Your task to perform on an android device: turn off priority inbox in the gmail app Image 0: 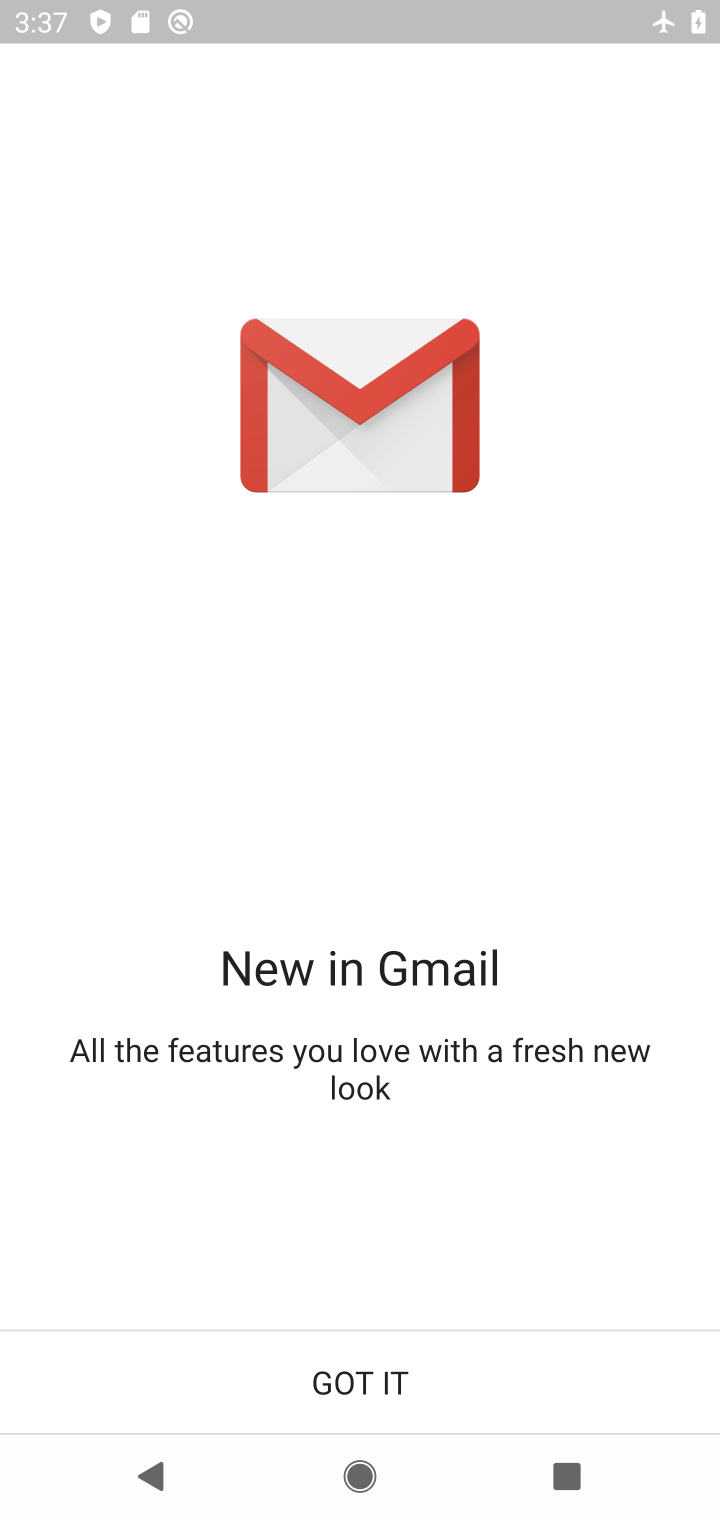
Step 0: click (325, 1367)
Your task to perform on an android device: turn off priority inbox in the gmail app Image 1: 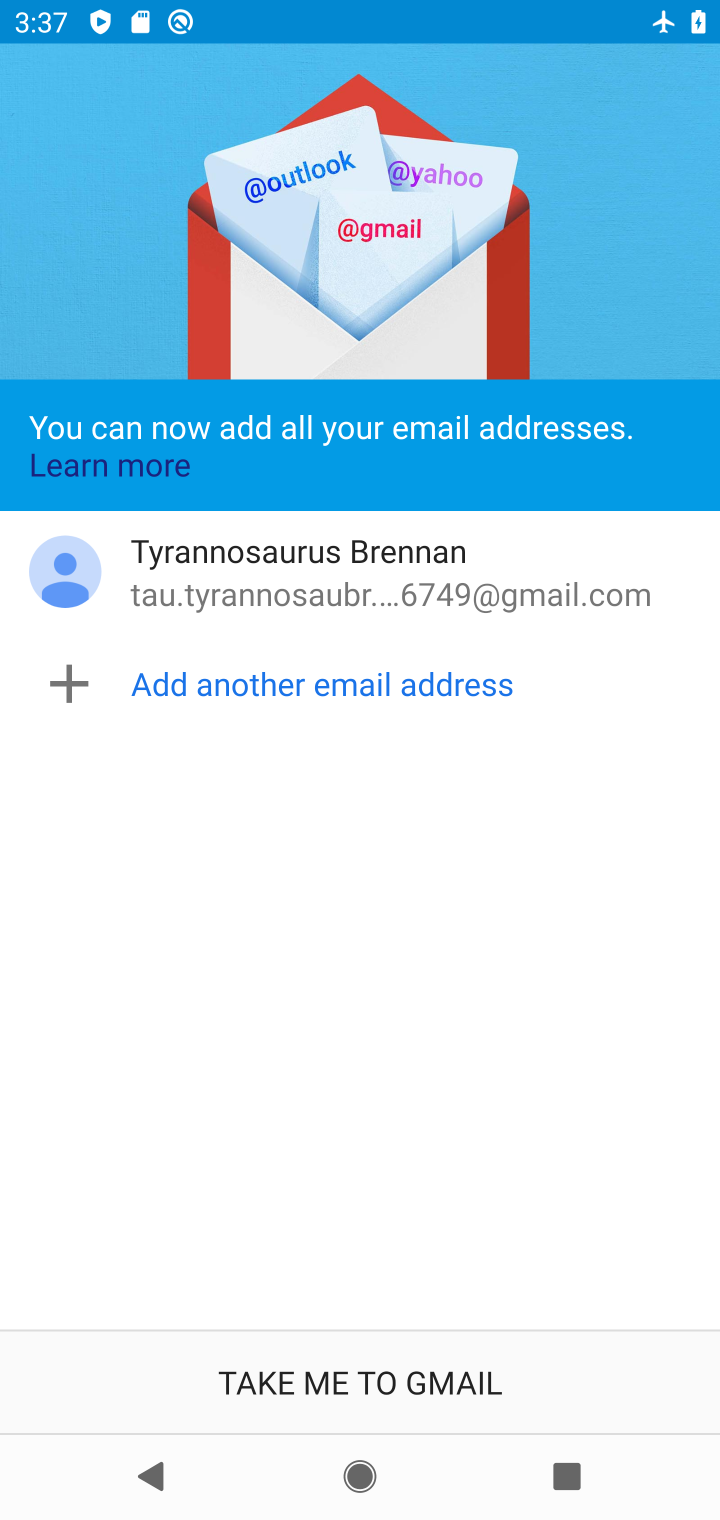
Step 1: click (353, 1385)
Your task to perform on an android device: turn off priority inbox in the gmail app Image 2: 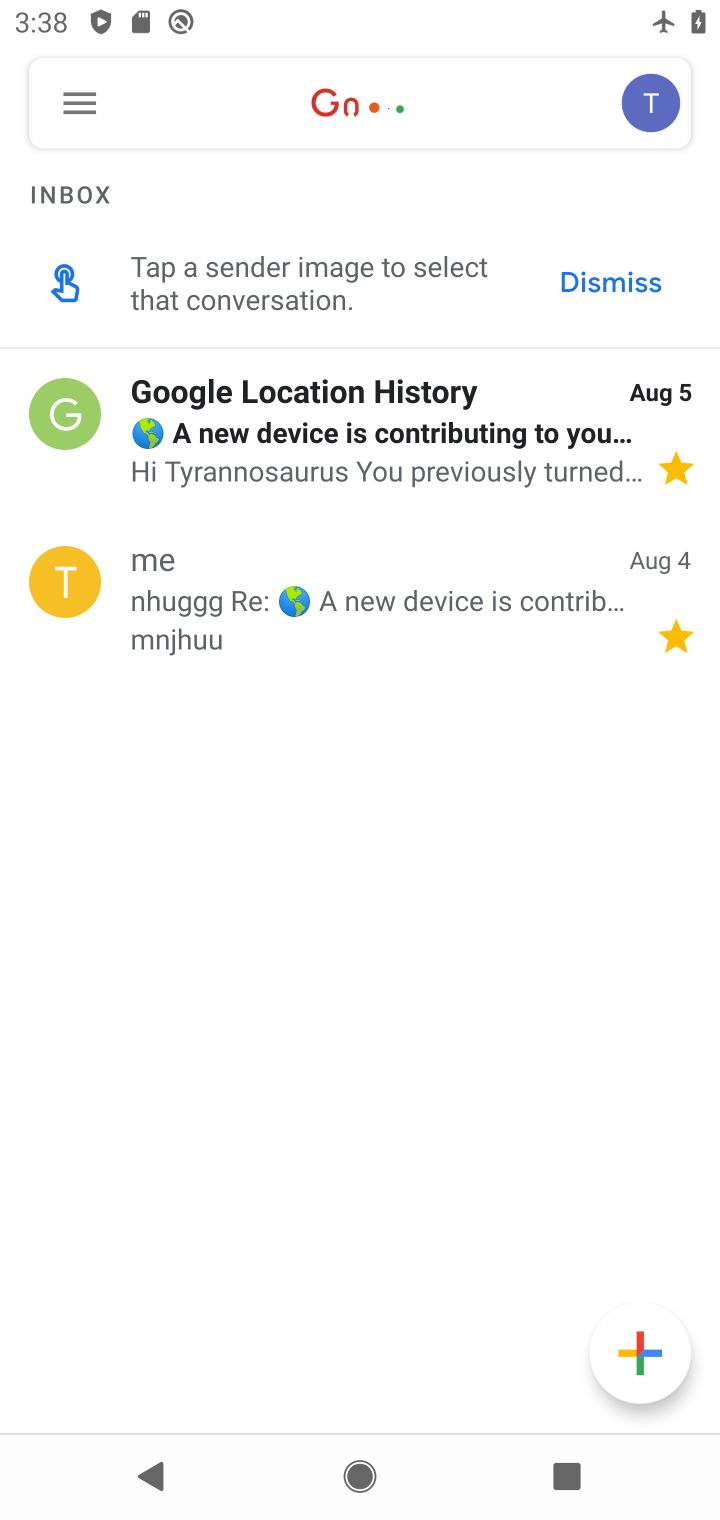
Step 2: click (93, 102)
Your task to perform on an android device: turn off priority inbox in the gmail app Image 3: 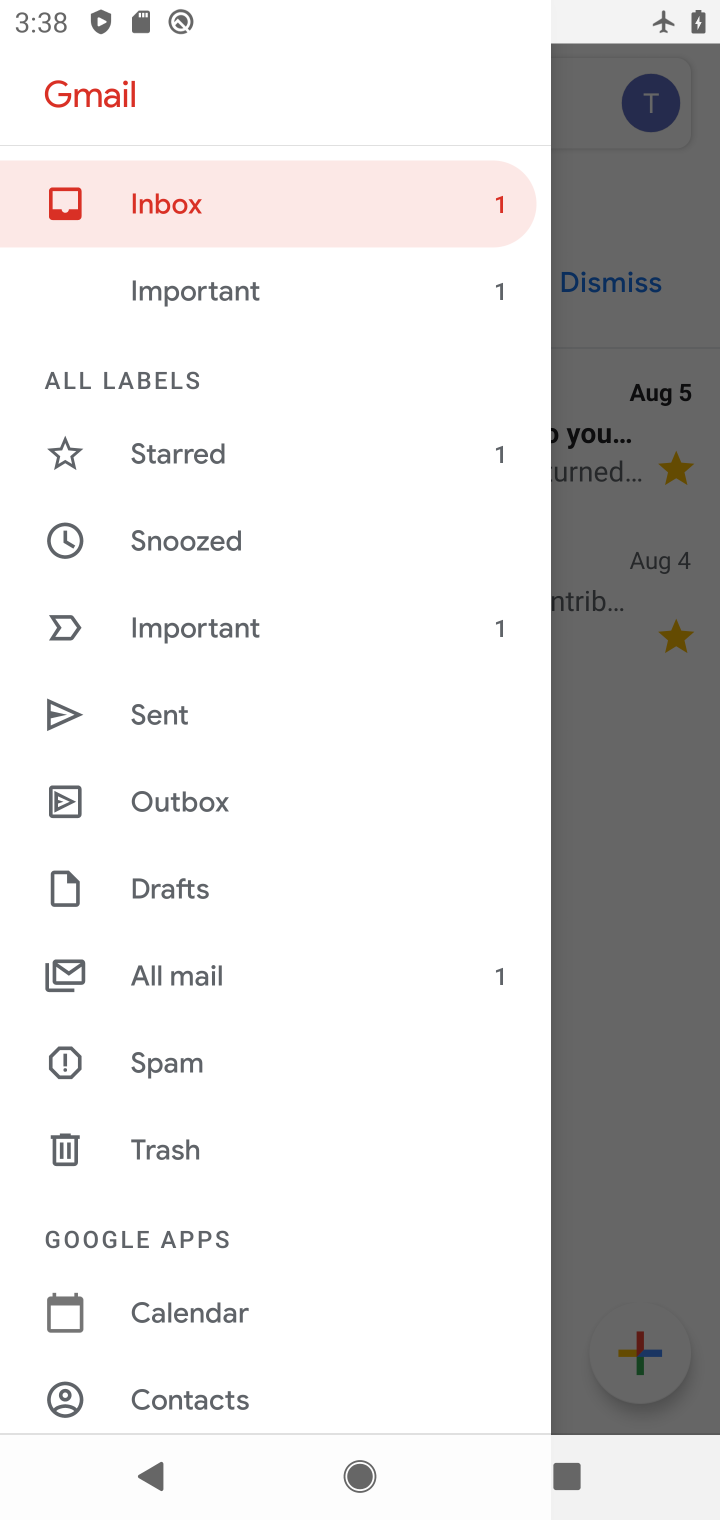
Step 3: drag from (192, 1363) to (232, 477)
Your task to perform on an android device: turn off priority inbox in the gmail app Image 4: 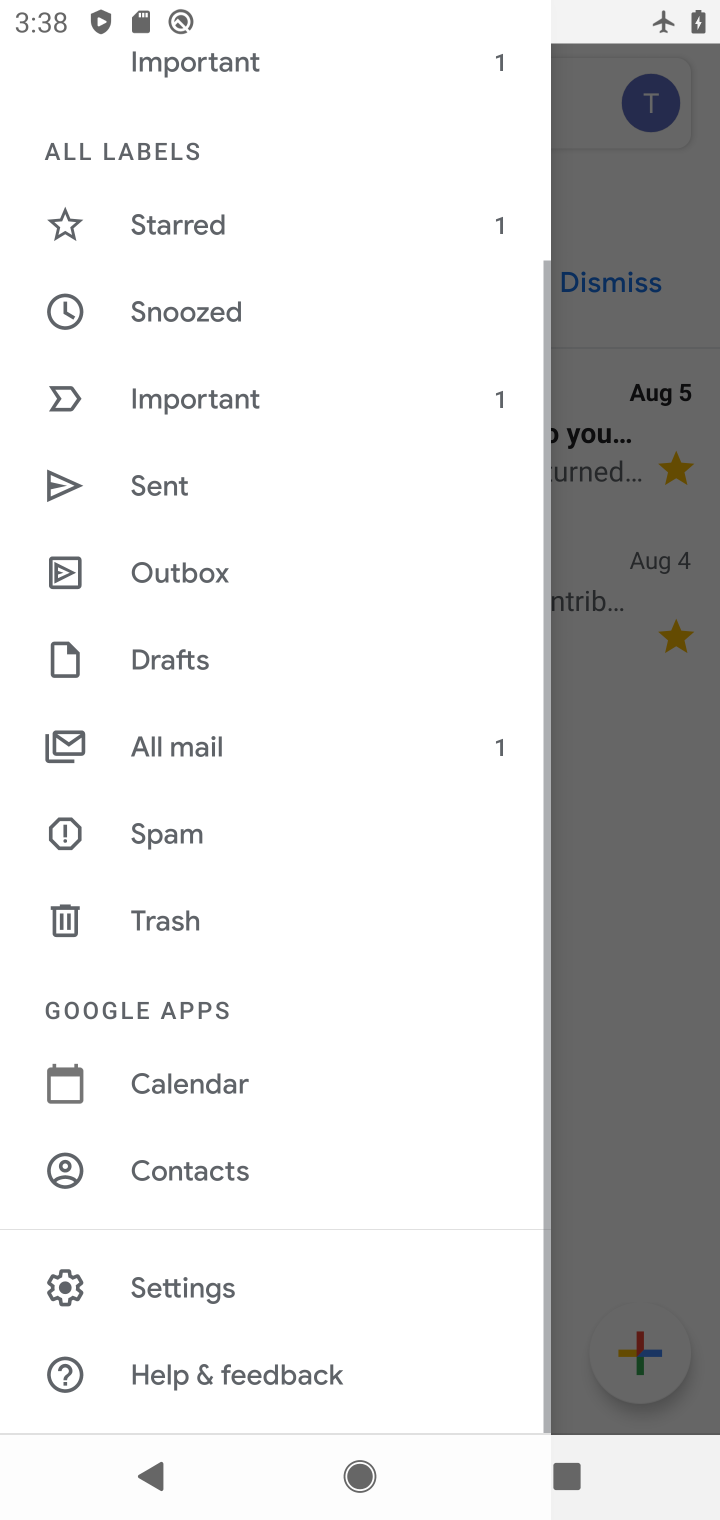
Step 4: click (164, 1249)
Your task to perform on an android device: turn off priority inbox in the gmail app Image 5: 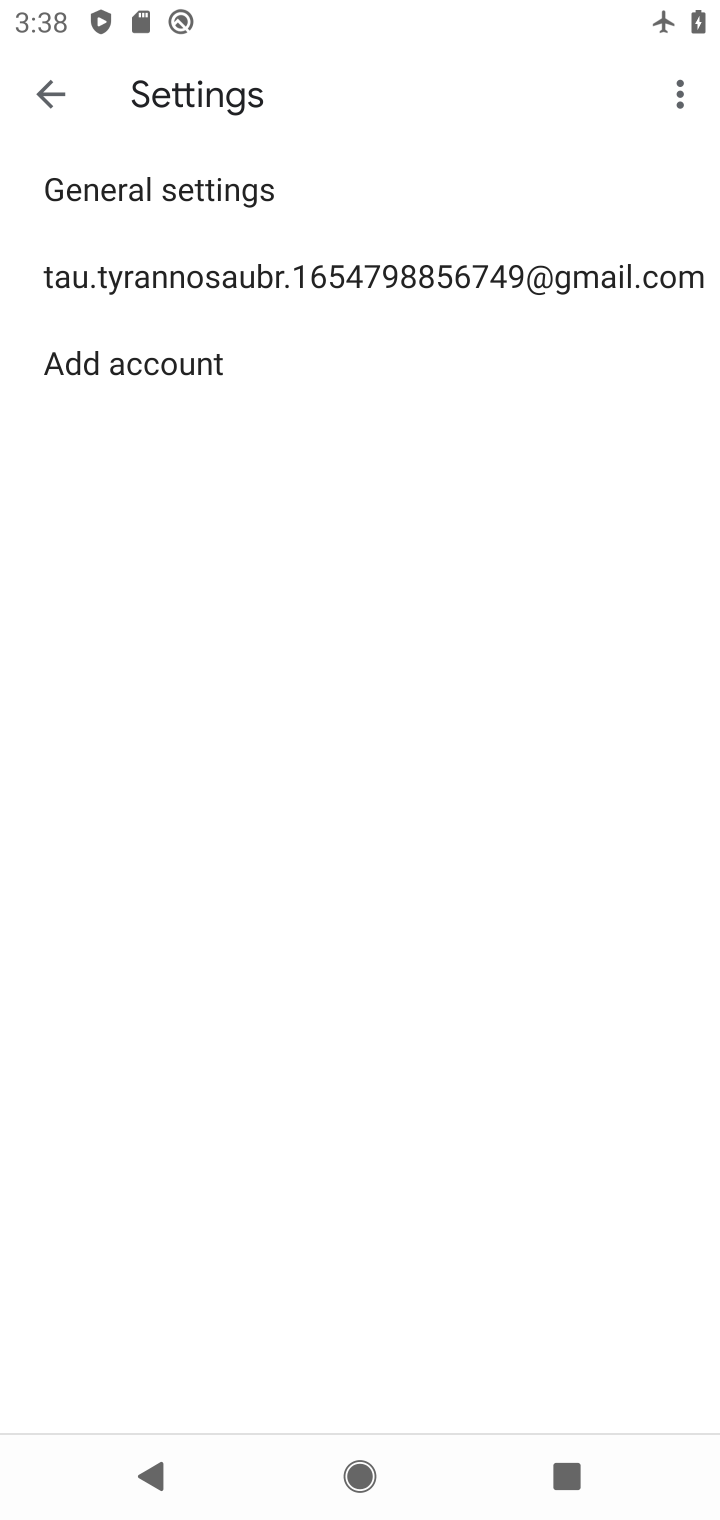
Step 5: click (95, 105)
Your task to perform on an android device: turn off priority inbox in the gmail app Image 6: 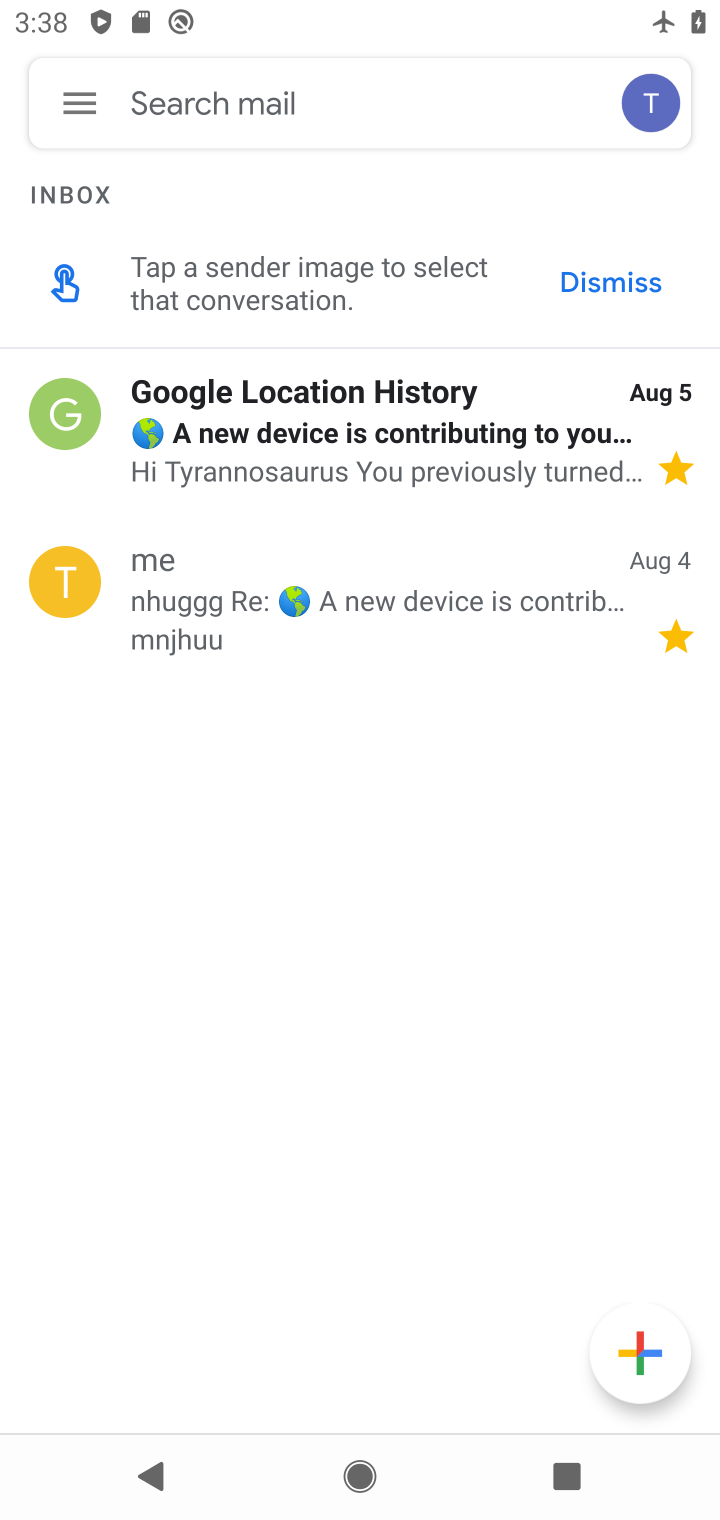
Step 6: click (199, 279)
Your task to perform on an android device: turn off priority inbox in the gmail app Image 7: 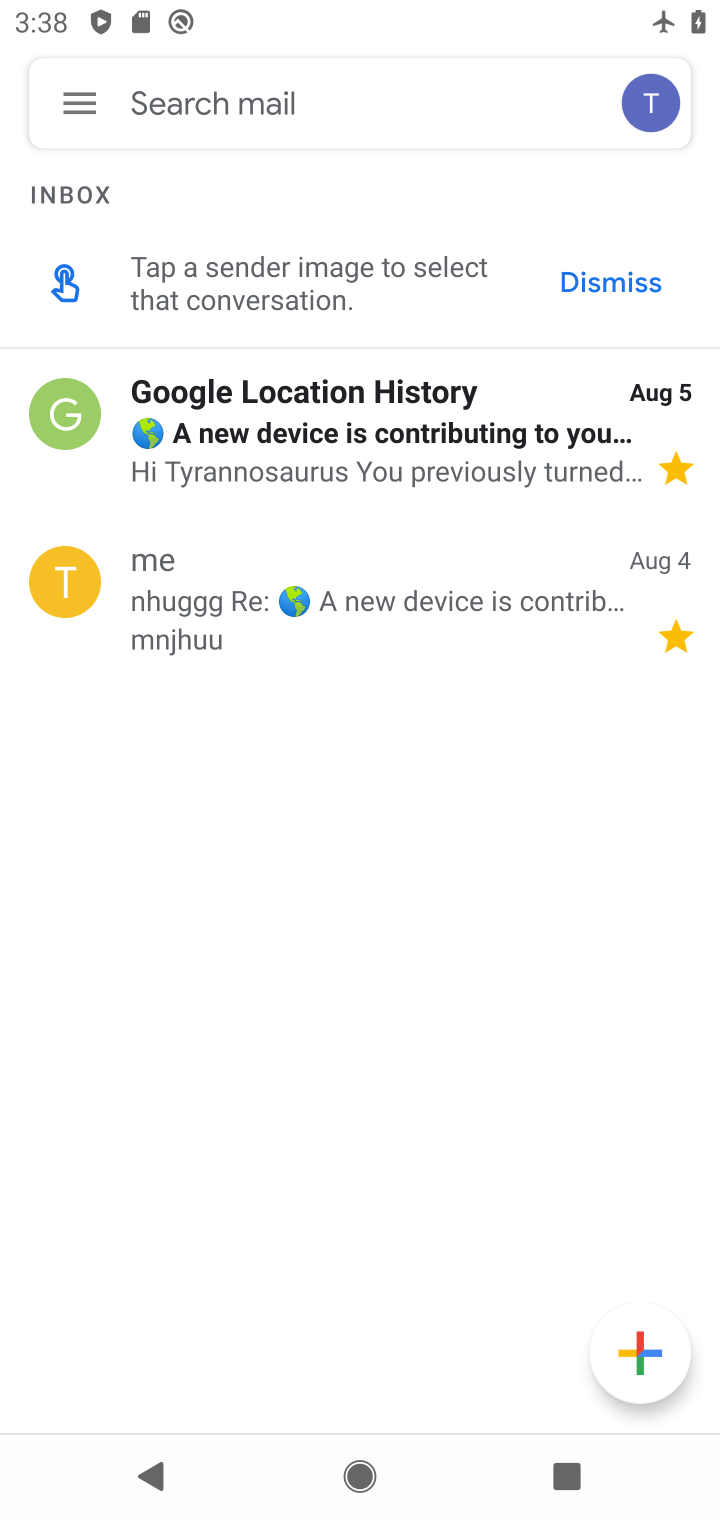
Step 7: click (67, 101)
Your task to perform on an android device: turn off priority inbox in the gmail app Image 8: 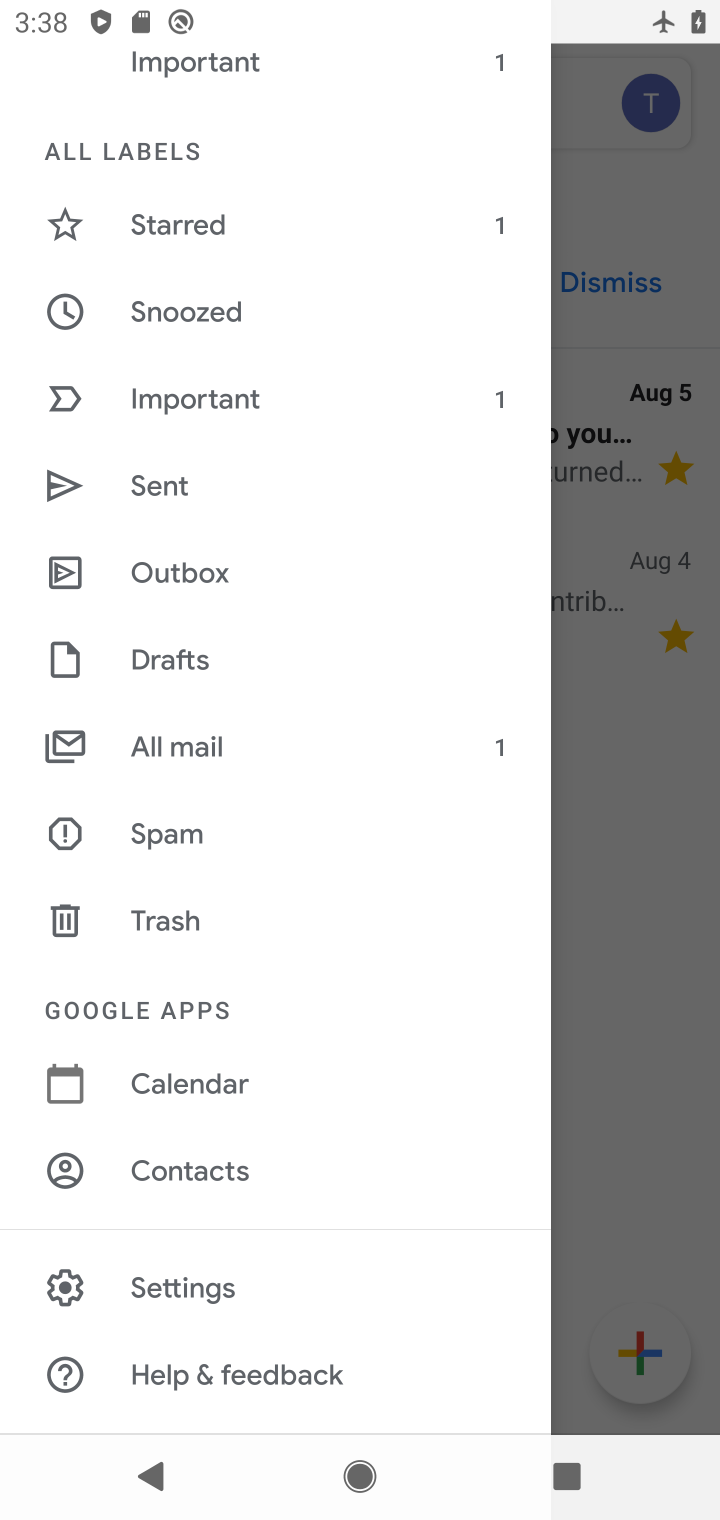
Step 8: click (176, 1295)
Your task to perform on an android device: turn off priority inbox in the gmail app Image 9: 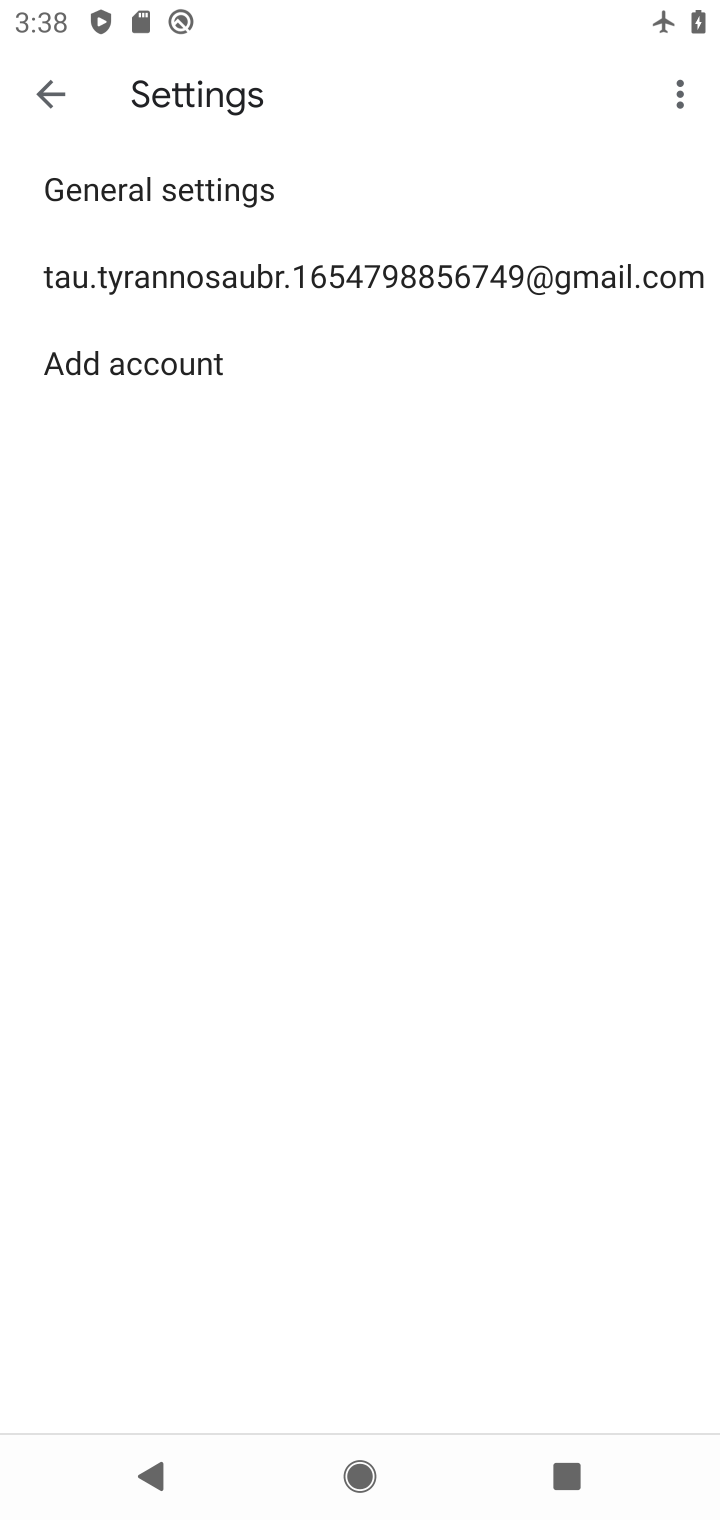
Step 9: click (169, 272)
Your task to perform on an android device: turn off priority inbox in the gmail app Image 10: 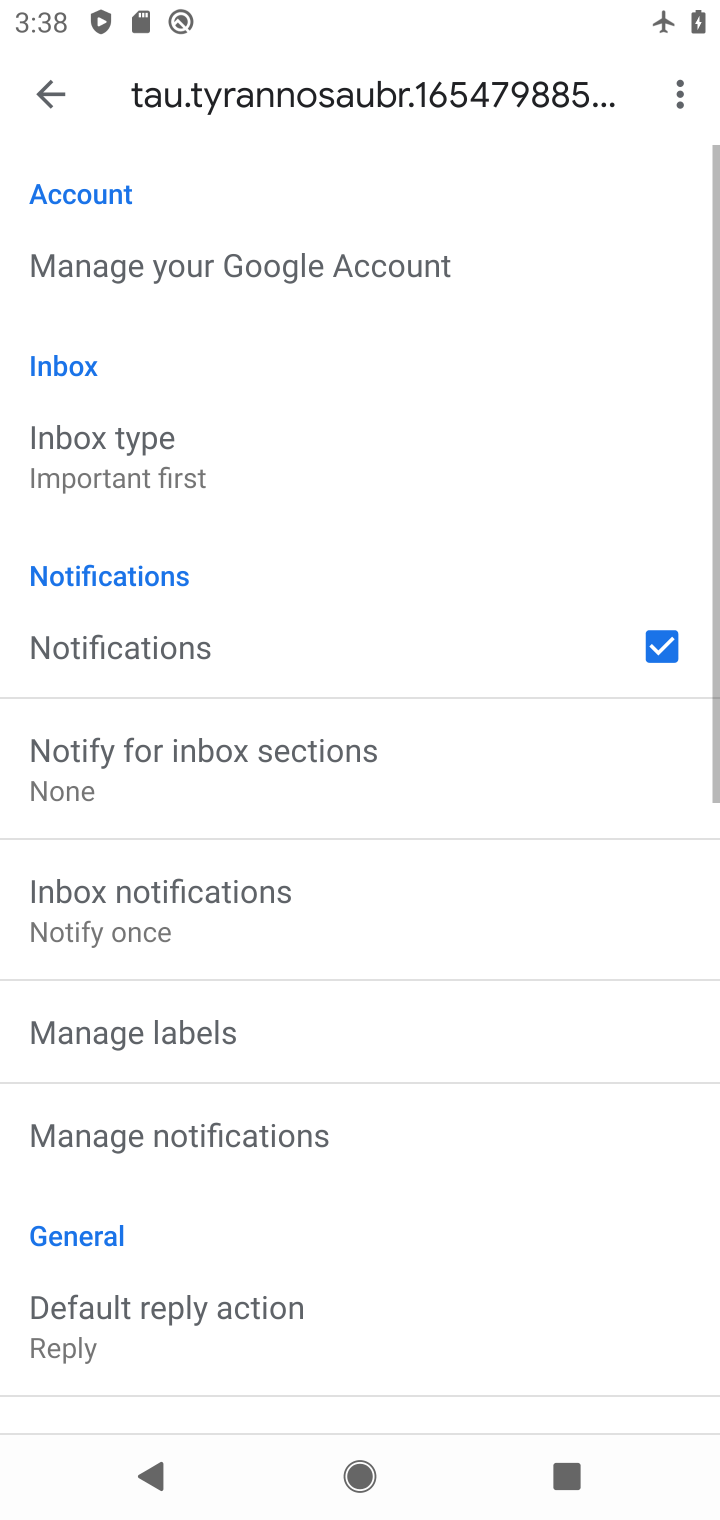
Step 10: click (117, 475)
Your task to perform on an android device: turn off priority inbox in the gmail app Image 11: 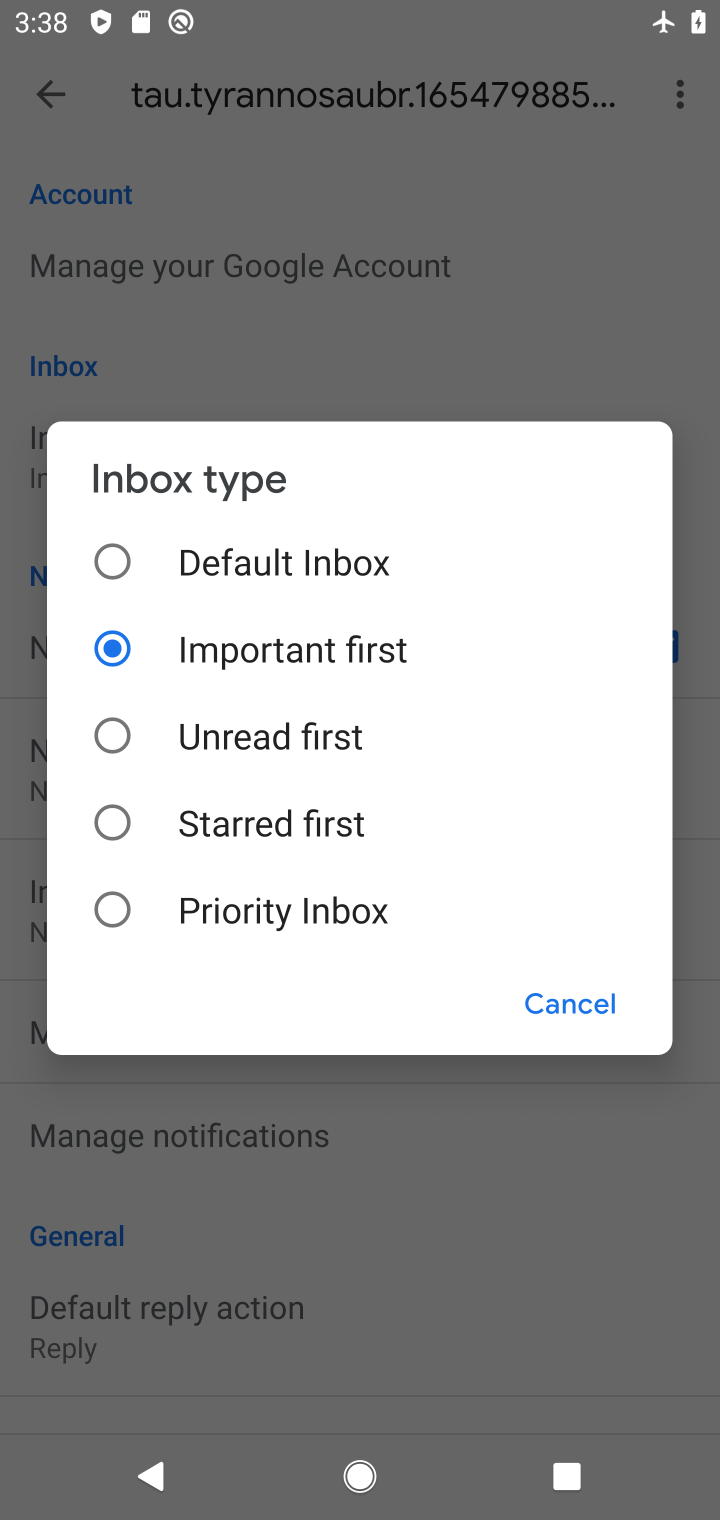
Step 11: click (564, 1001)
Your task to perform on an android device: turn off priority inbox in the gmail app Image 12: 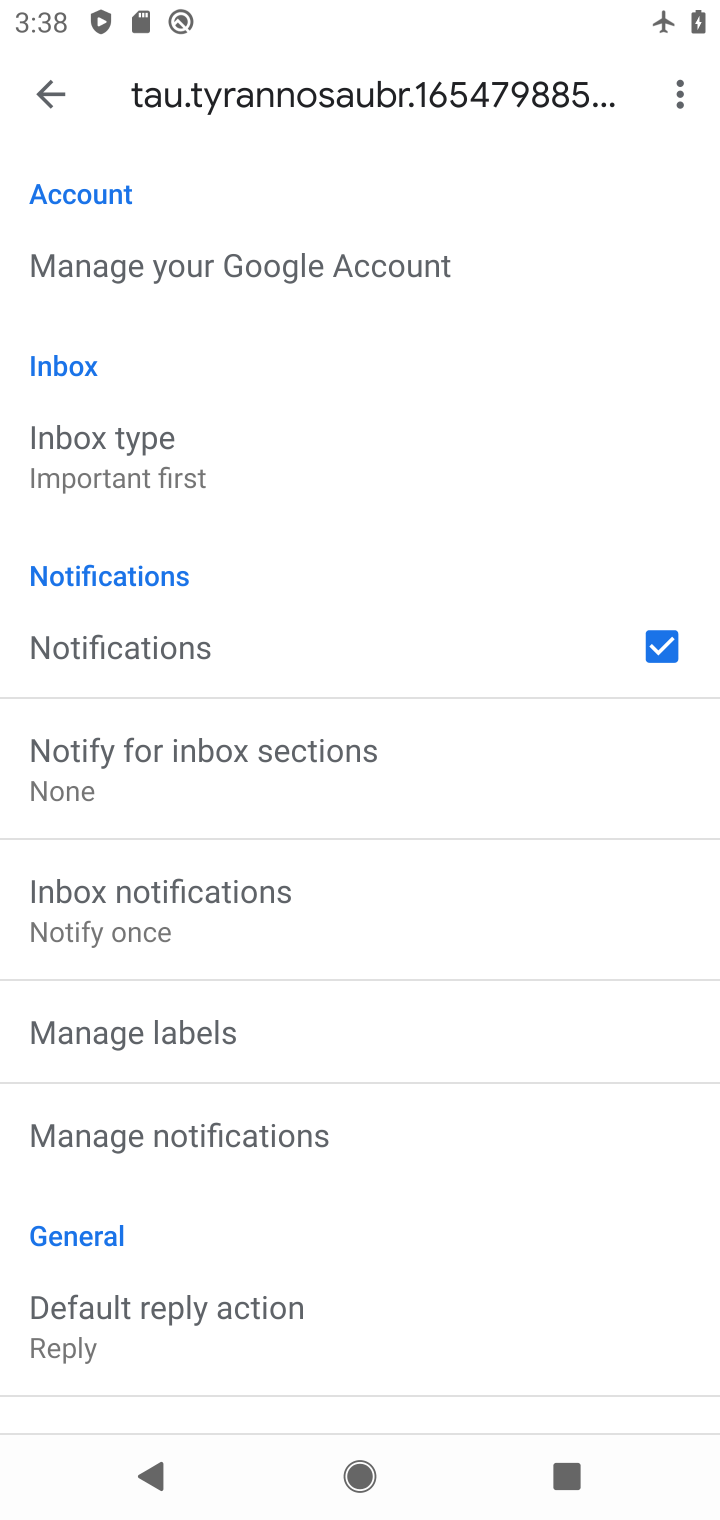
Step 12: task complete